Your task to perform on an android device: Search for a new desk on IKEA Image 0: 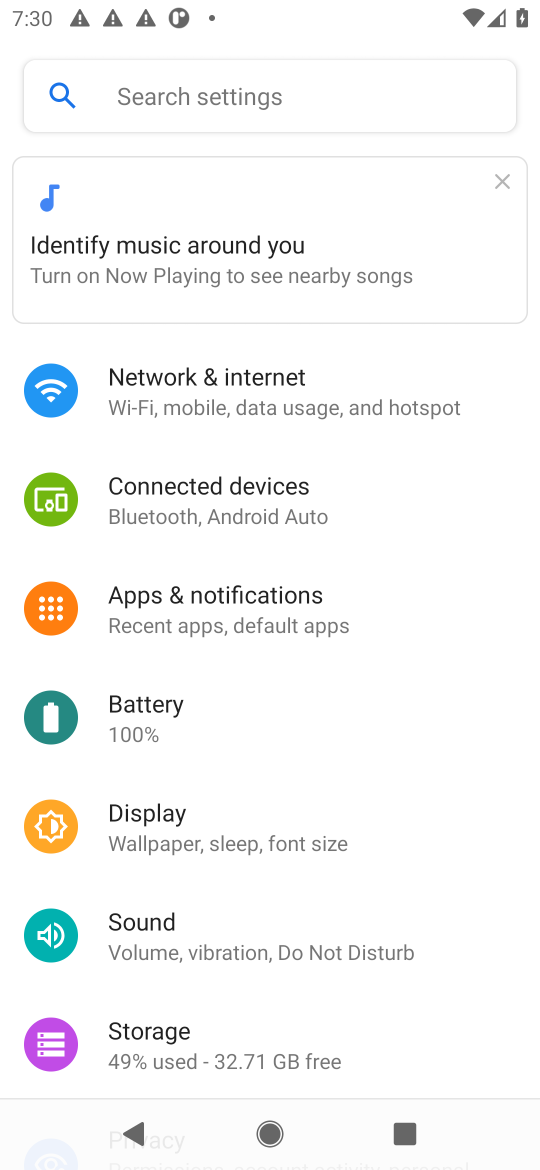
Step 0: press home button
Your task to perform on an android device: Search for a new desk on IKEA Image 1: 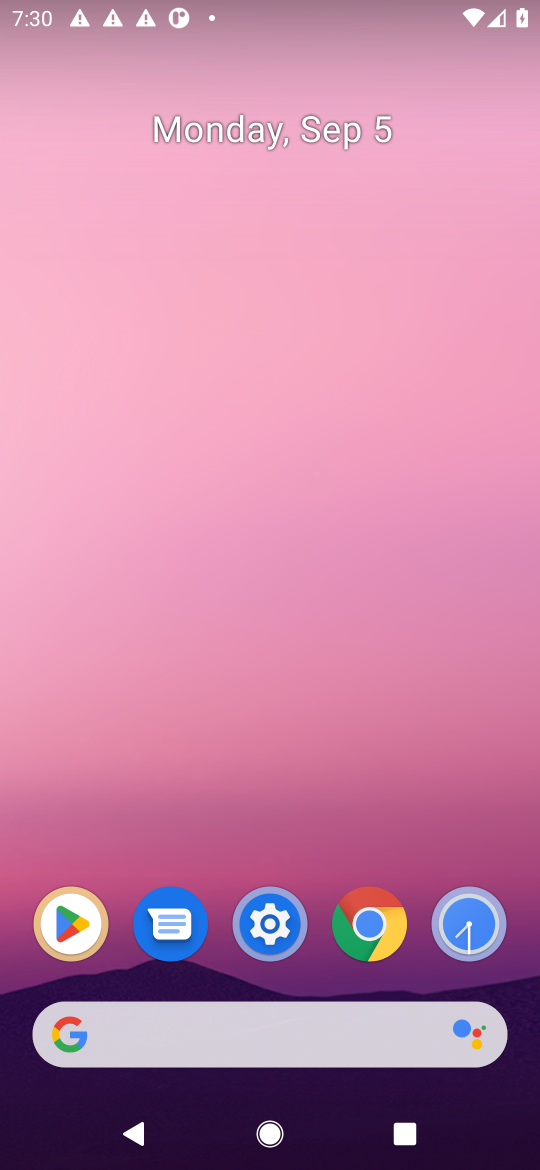
Step 1: click (372, 1034)
Your task to perform on an android device: Search for a new desk on IKEA Image 2: 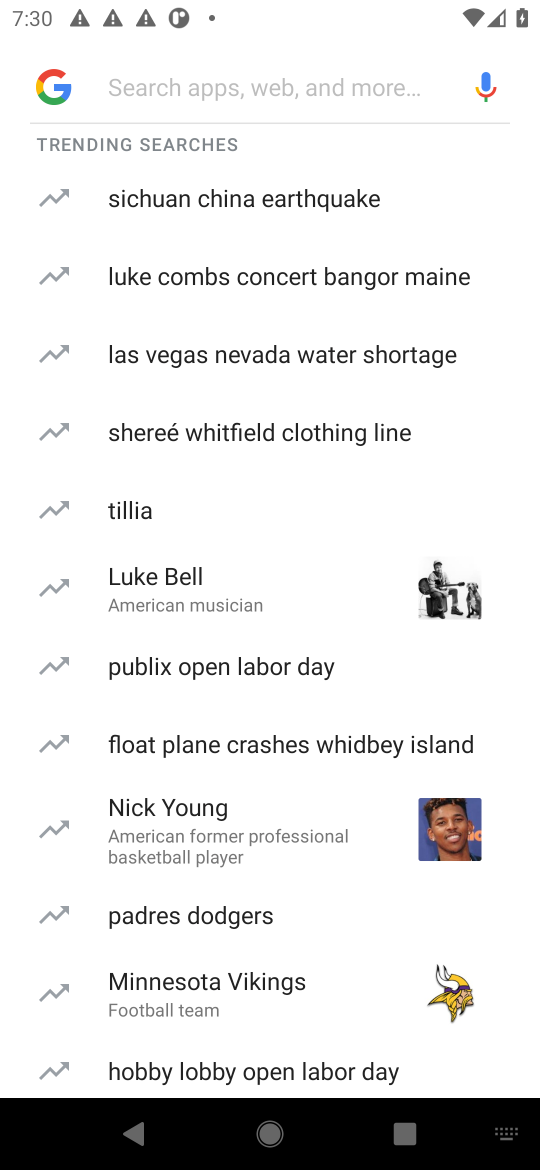
Step 2: type "ikea"
Your task to perform on an android device: Search for a new desk on IKEA Image 3: 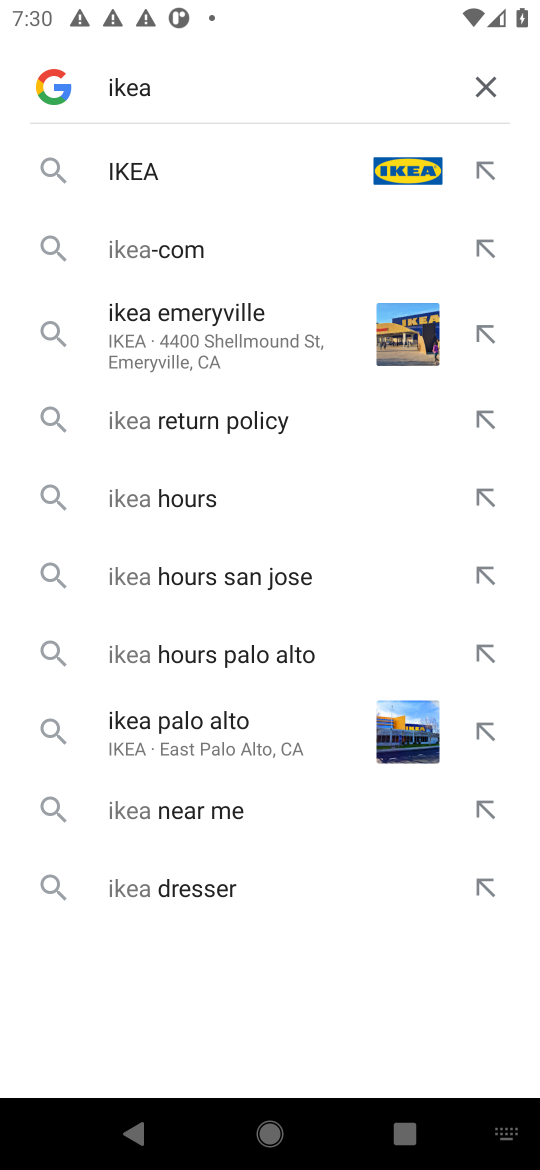
Step 3: press enter
Your task to perform on an android device: Search for a new desk on IKEA Image 4: 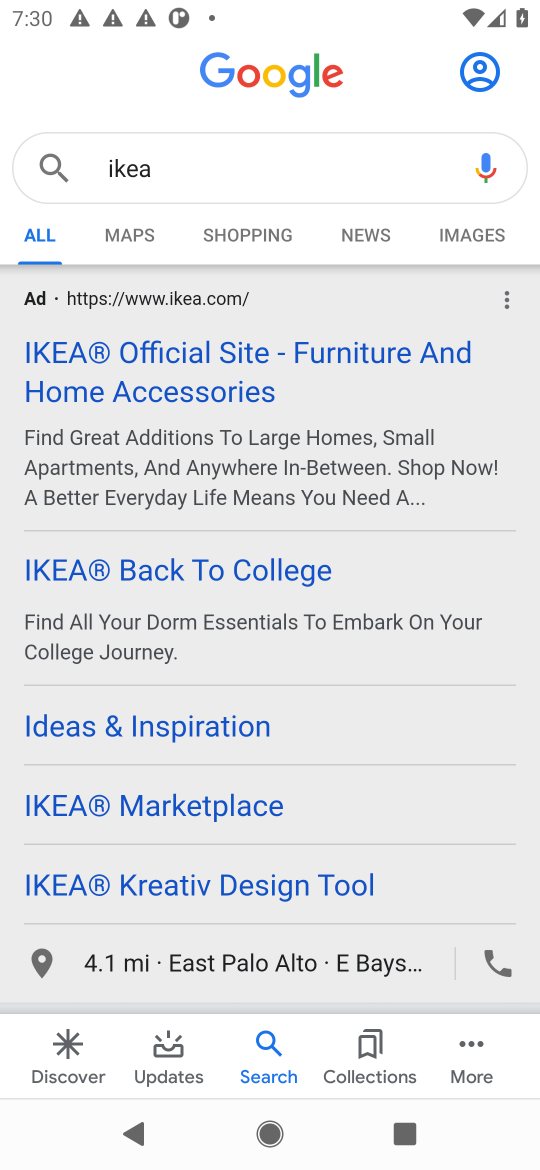
Step 4: click (226, 345)
Your task to perform on an android device: Search for a new desk on IKEA Image 5: 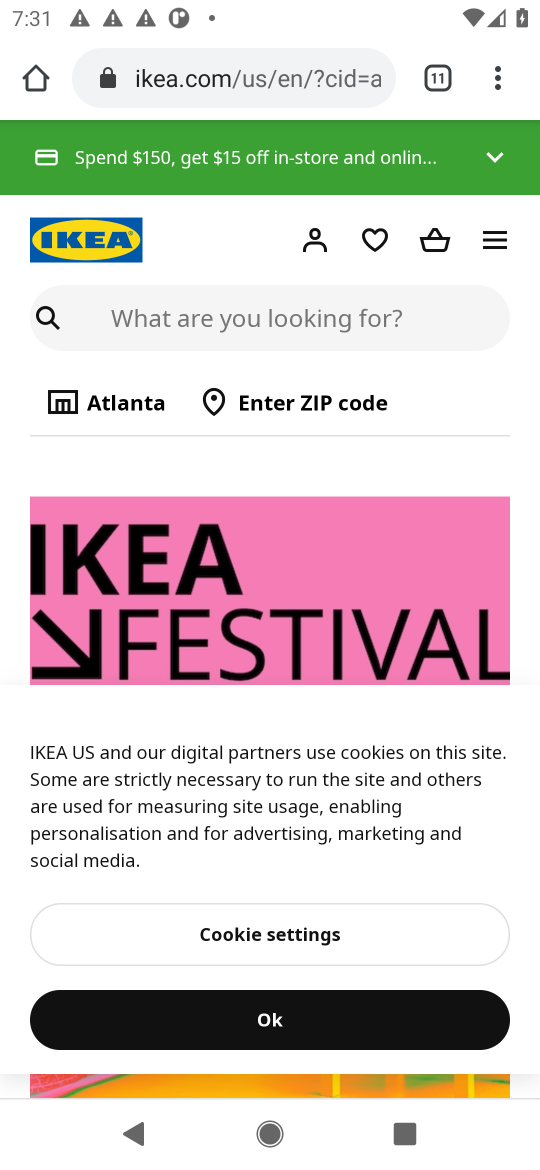
Step 5: click (332, 320)
Your task to perform on an android device: Search for a new desk on IKEA Image 6: 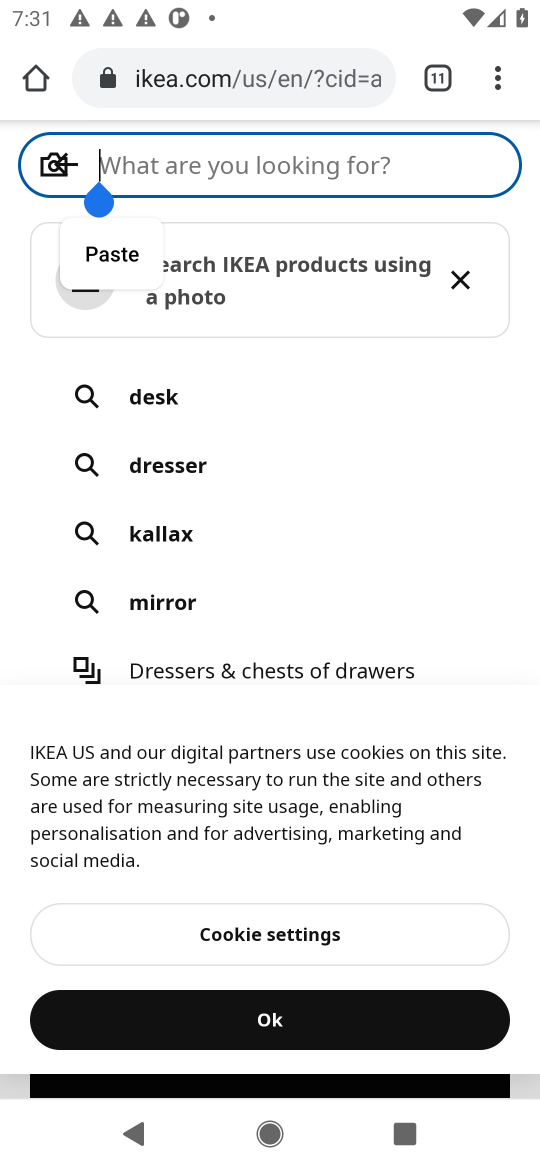
Step 6: type "new desk"
Your task to perform on an android device: Search for a new desk on IKEA Image 7: 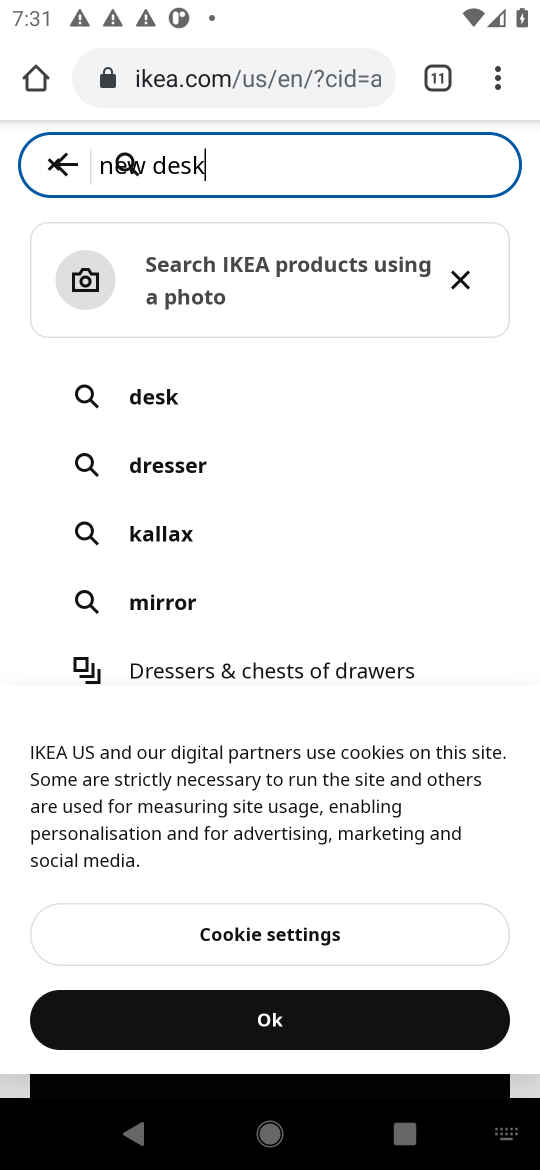
Step 7: press enter
Your task to perform on an android device: Search for a new desk on IKEA Image 8: 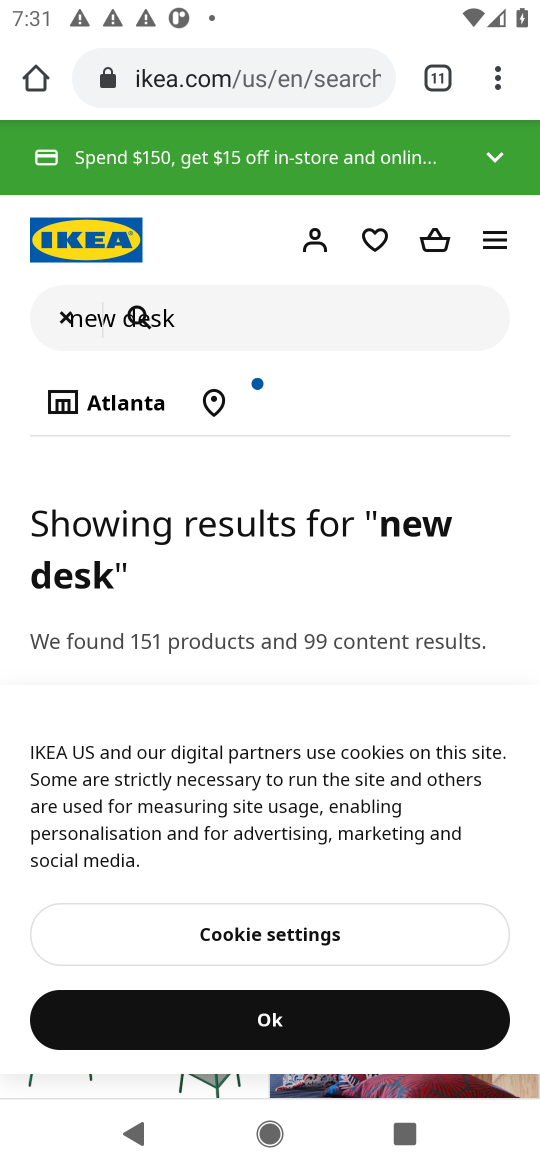
Step 8: click (380, 1030)
Your task to perform on an android device: Search for a new desk on IKEA Image 9: 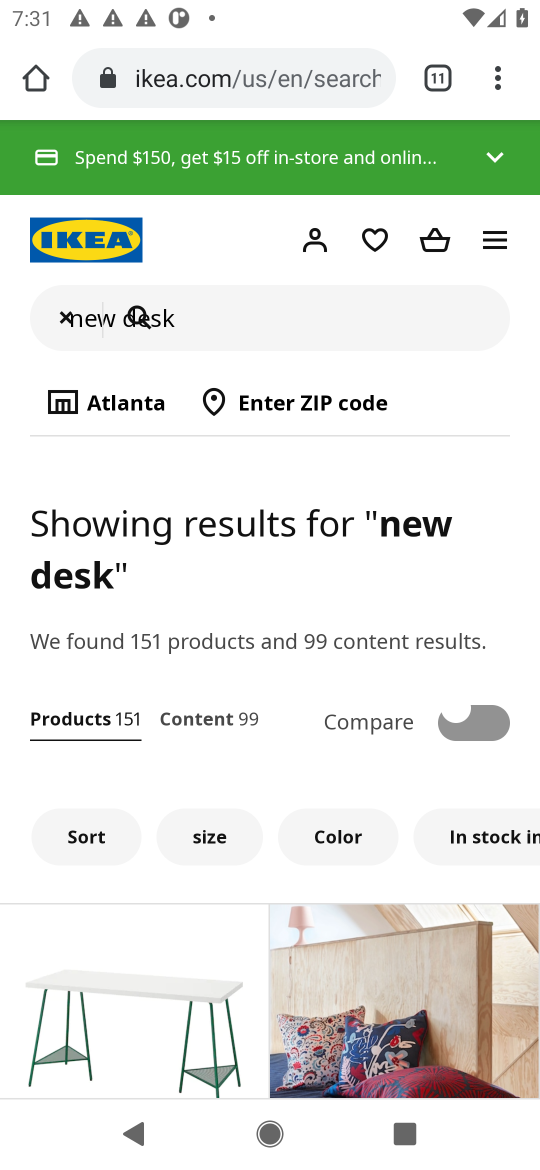
Step 9: task complete